Your task to perform on an android device: What is the news today? Image 0: 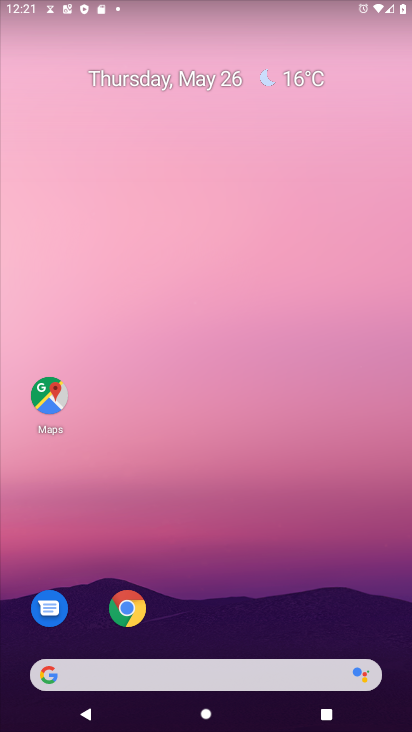
Step 0: drag from (234, 309) to (236, 545)
Your task to perform on an android device: What is the news today? Image 1: 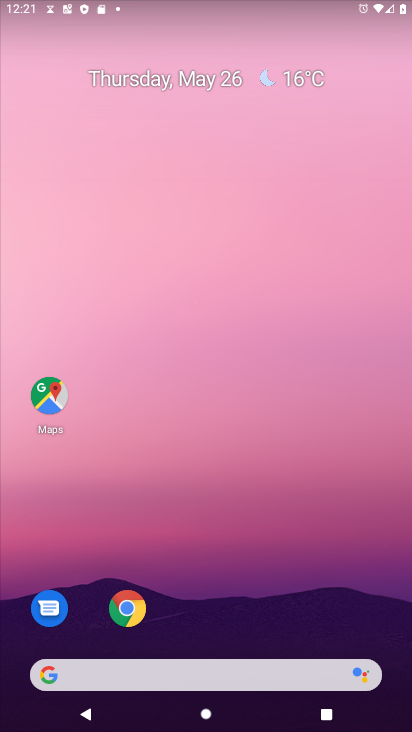
Step 1: task complete